Your task to perform on an android device: set default search engine in the chrome app Image 0: 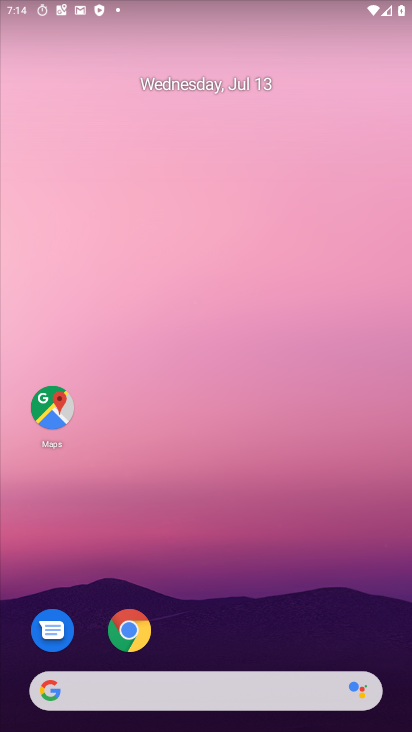
Step 0: drag from (268, 580) to (281, 38)
Your task to perform on an android device: set default search engine in the chrome app Image 1: 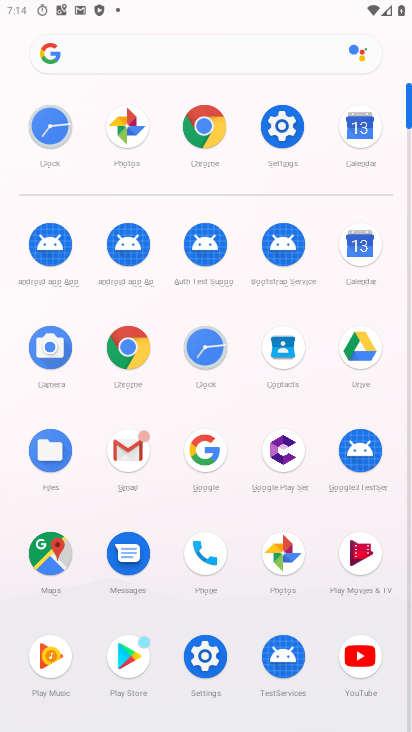
Step 1: click (111, 351)
Your task to perform on an android device: set default search engine in the chrome app Image 2: 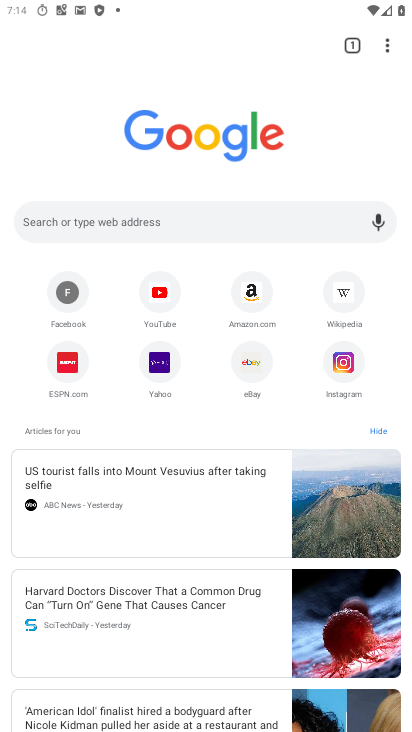
Step 2: click (389, 40)
Your task to perform on an android device: set default search engine in the chrome app Image 3: 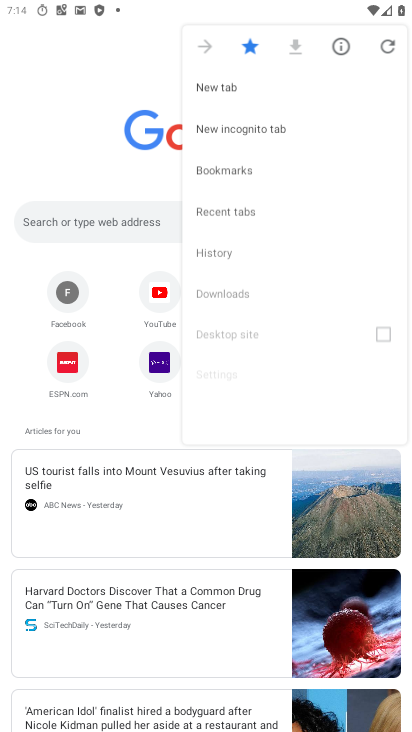
Step 3: click (389, 40)
Your task to perform on an android device: set default search engine in the chrome app Image 4: 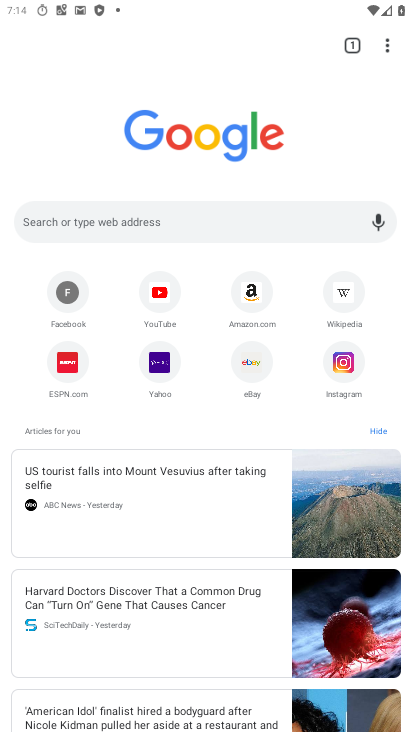
Step 4: click (389, 40)
Your task to perform on an android device: set default search engine in the chrome app Image 5: 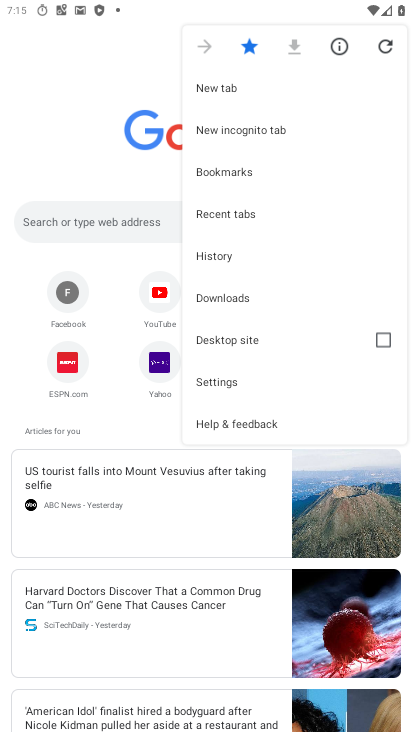
Step 5: click (180, 388)
Your task to perform on an android device: set default search engine in the chrome app Image 6: 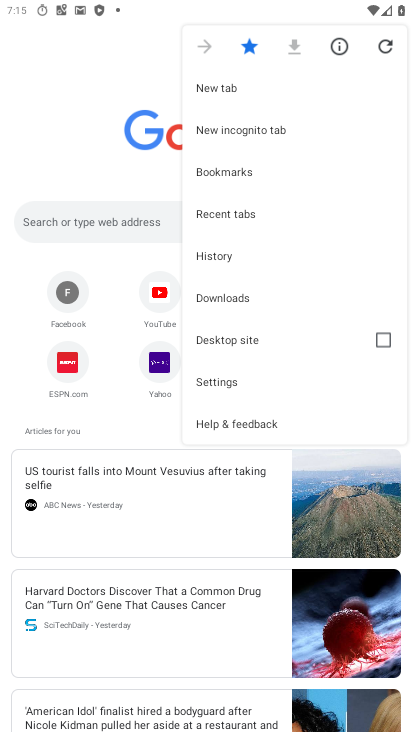
Step 6: click (215, 374)
Your task to perform on an android device: set default search engine in the chrome app Image 7: 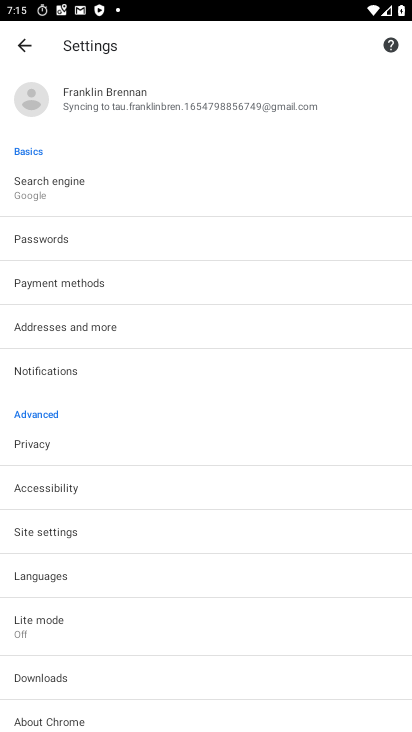
Step 7: click (62, 172)
Your task to perform on an android device: set default search engine in the chrome app Image 8: 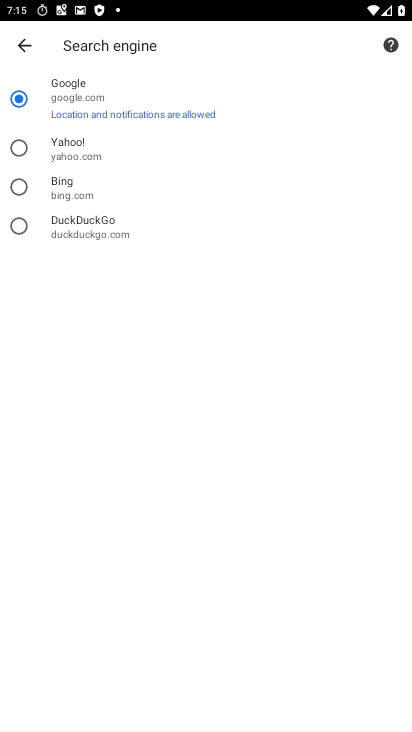
Step 8: click (64, 188)
Your task to perform on an android device: set default search engine in the chrome app Image 9: 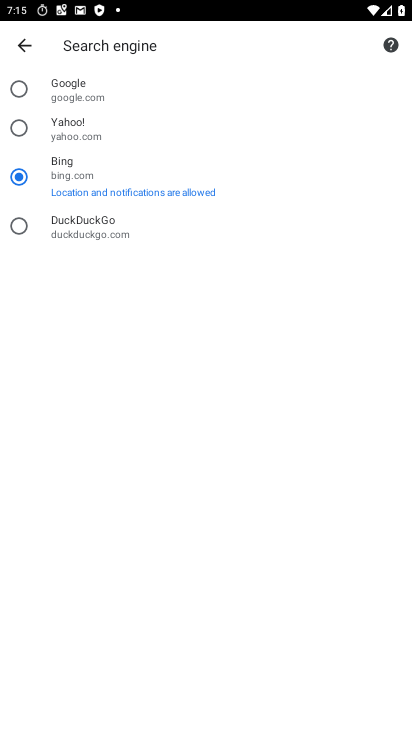
Step 9: task complete